Your task to perform on an android device: open app "Expedia: Hotels, Flights & Car" (install if not already installed) Image 0: 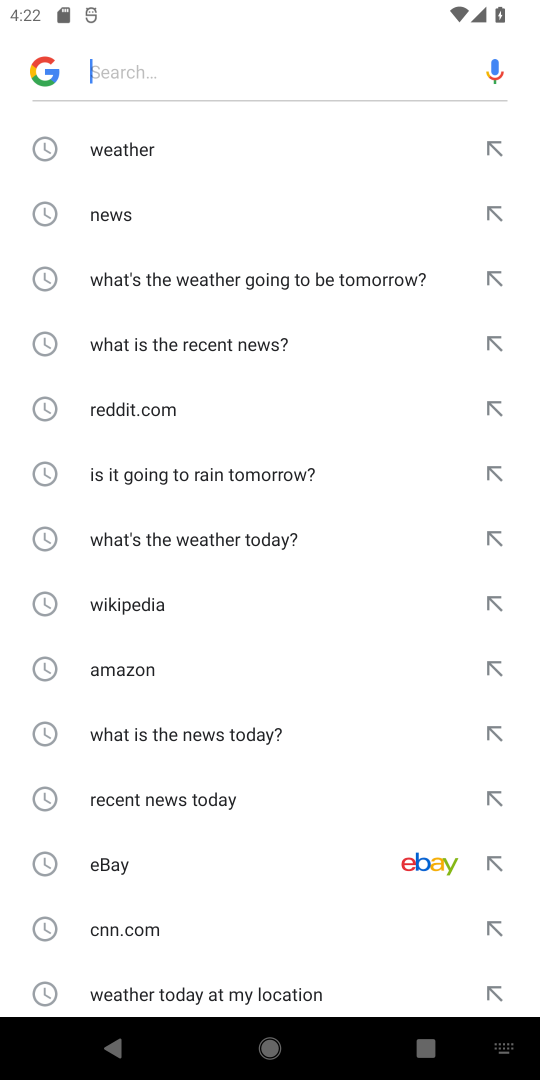
Step 0: press back button
Your task to perform on an android device: open app "Expedia: Hotels, Flights & Car" (install if not already installed) Image 1: 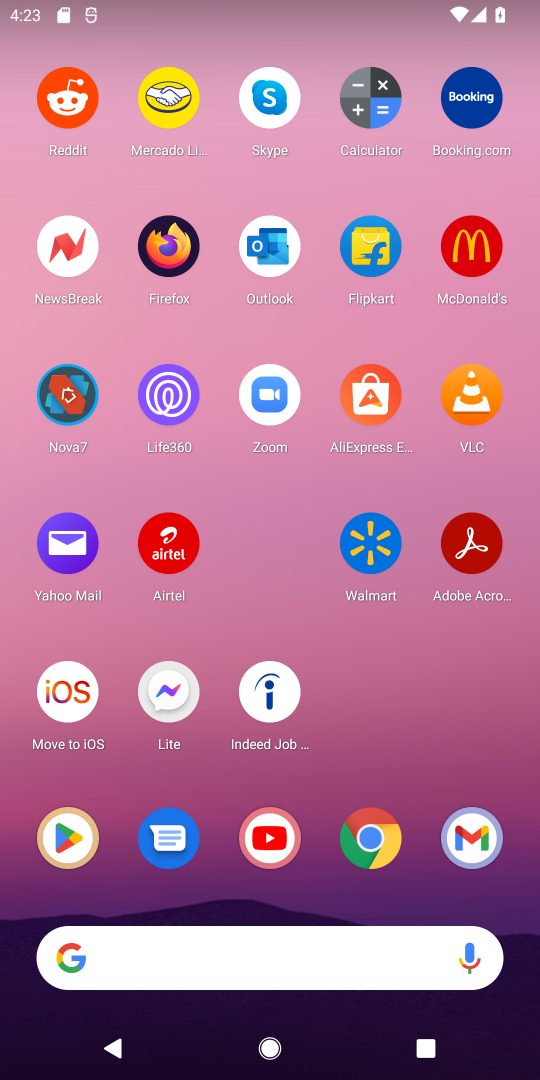
Step 1: click (89, 851)
Your task to perform on an android device: open app "Expedia: Hotels, Flights & Car" (install if not already installed) Image 2: 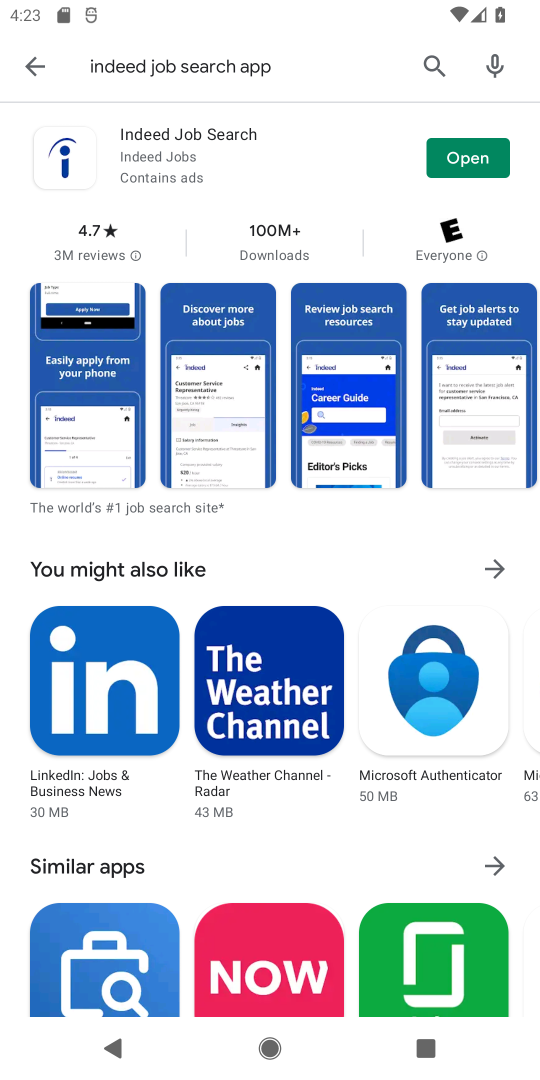
Step 2: click (434, 74)
Your task to perform on an android device: open app "Expedia: Hotels, Flights & Car" (install if not already installed) Image 3: 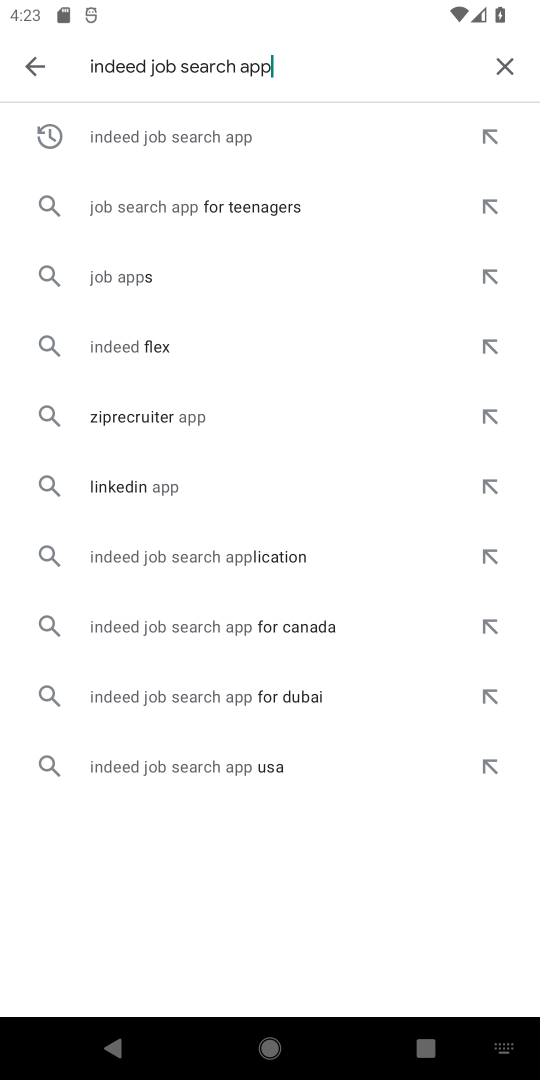
Step 3: click (498, 61)
Your task to perform on an android device: open app "Expedia: Hotels, Flights & Car" (install if not already installed) Image 4: 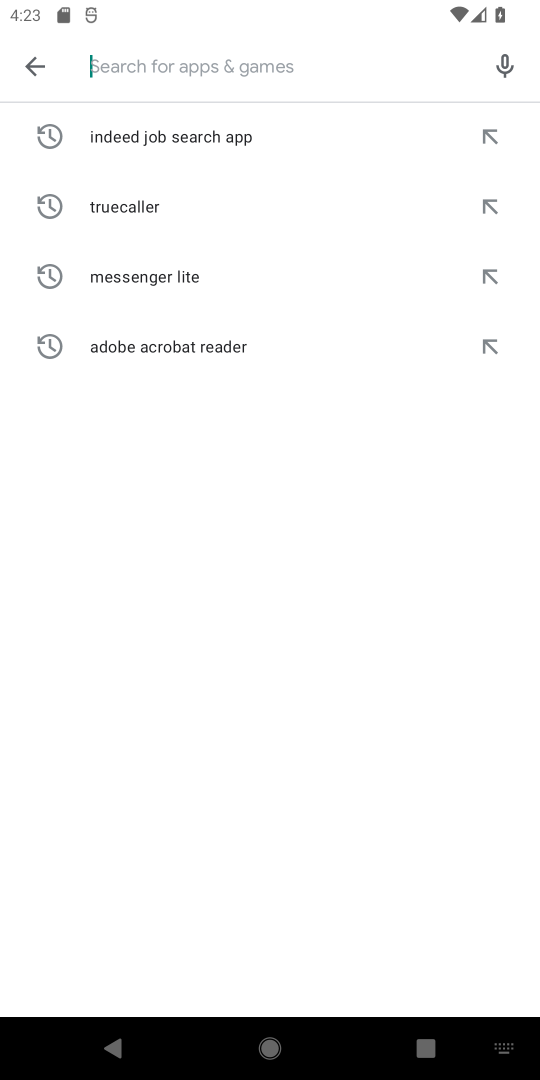
Step 4: type "Expedia: Hotels, Flights & Car"
Your task to perform on an android device: open app "Expedia: Hotels, Flights & Car" (install if not already installed) Image 5: 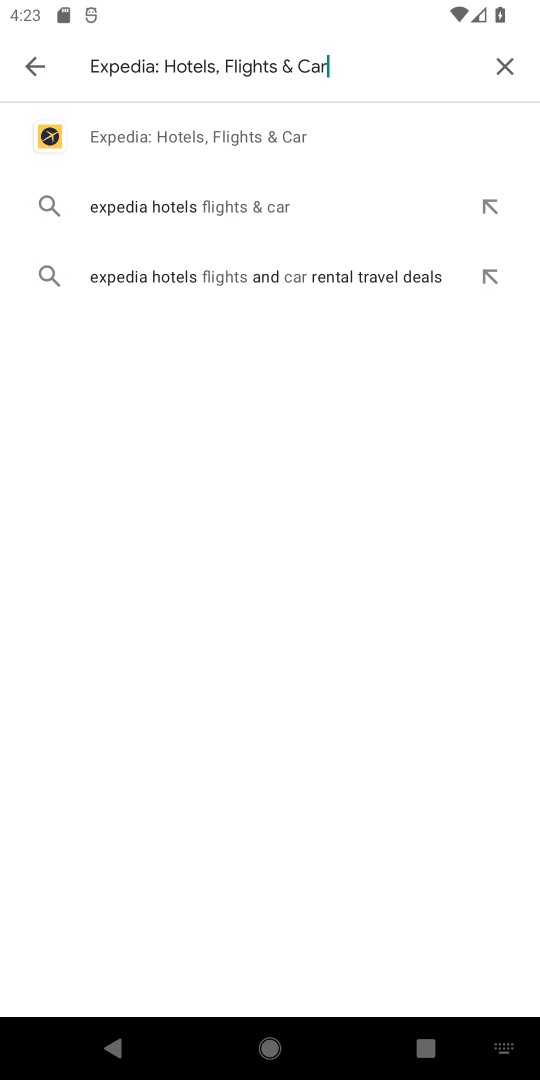
Step 5: click (178, 131)
Your task to perform on an android device: open app "Expedia: Hotels, Flights & Car" (install if not already installed) Image 6: 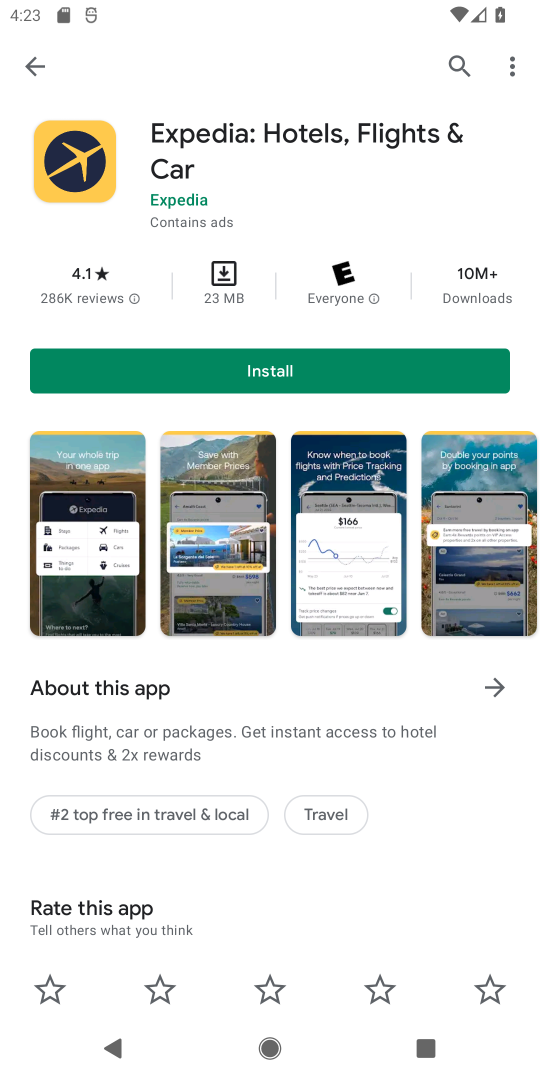
Step 6: click (277, 381)
Your task to perform on an android device: open app "Expedia: Hotels, Flights & Car" (install if not already installed) Image 7: 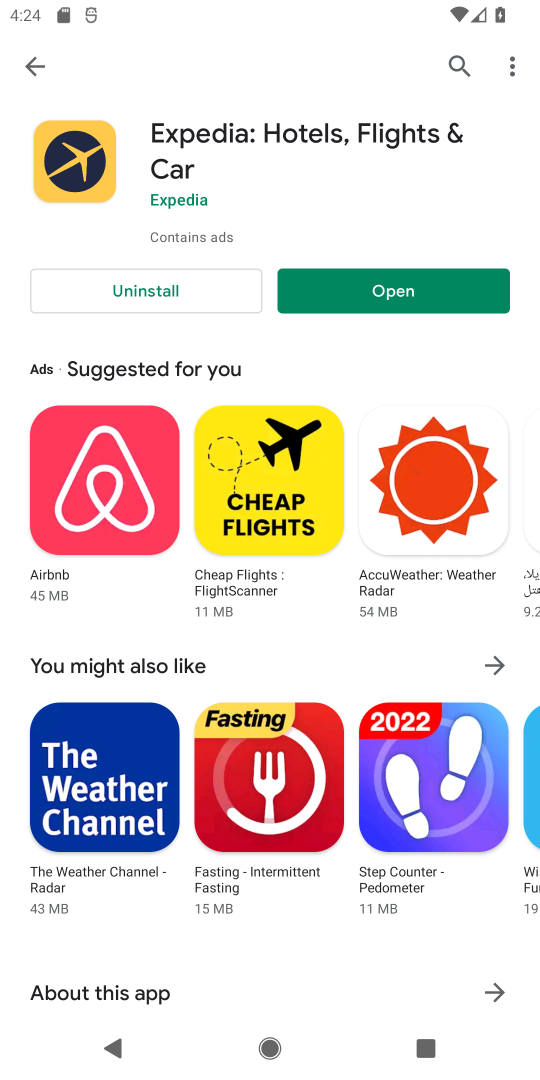
Step 7: click (340, 283)
Your task to perform on an android device: open app "Expedia: Hotels, Flights & Car" (install if not already installed) Image 8: 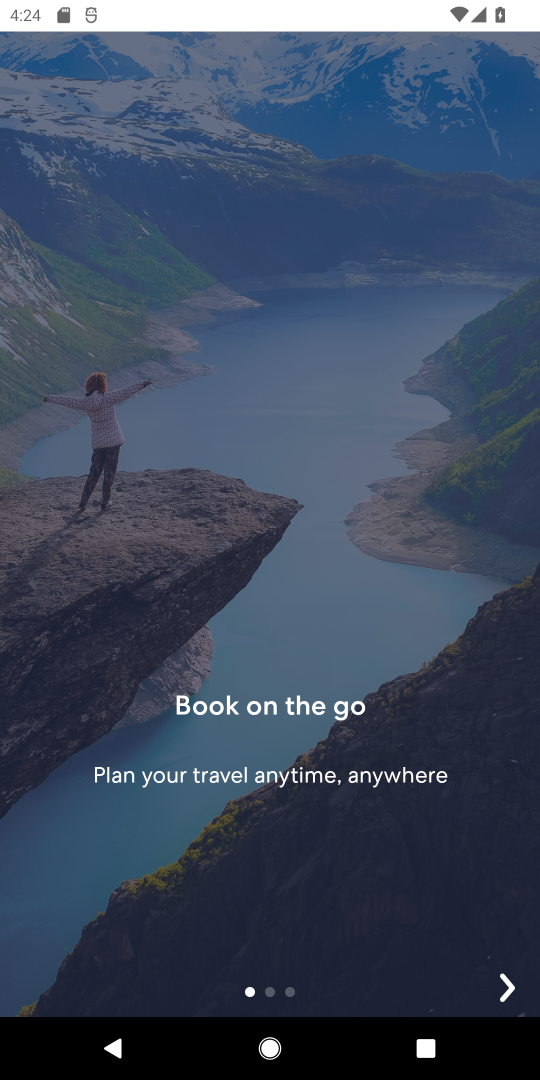
Step 8: task complete